Your task to perform on an android device: Go to ESPN.com Image 0: 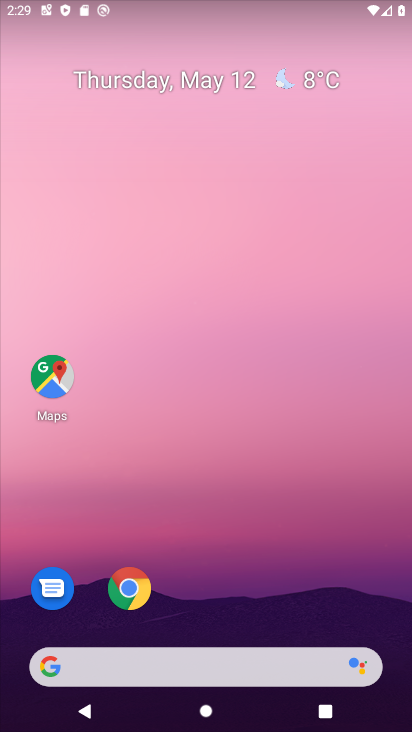
Step 0: drag from (264, 559) to (236, 23)
Your task to perform on an android device: Go to ESPN.com Image 1: 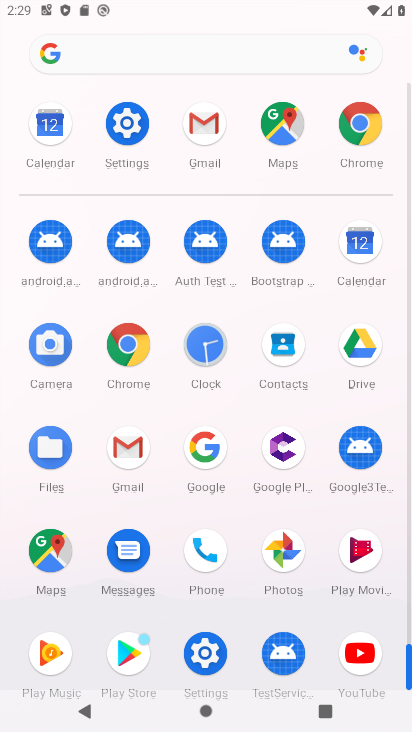
Step 1: click (124, 345)
Your task to perform on an android device: Go to ESPN.com Image 2: 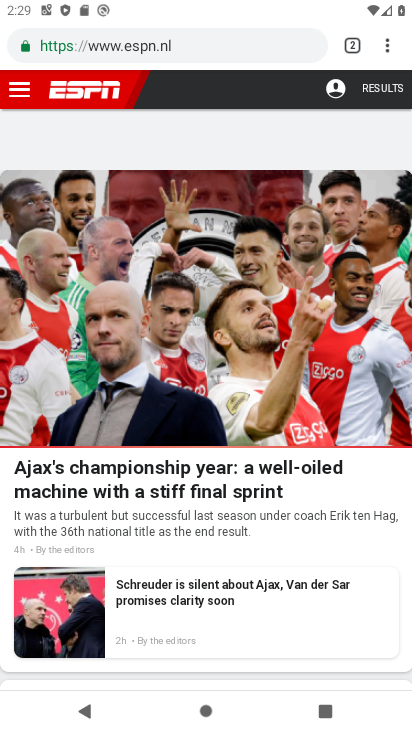
Step 2: click (180, 30)
Your task to perform on an android device: Go to ESPN.com Image 3: 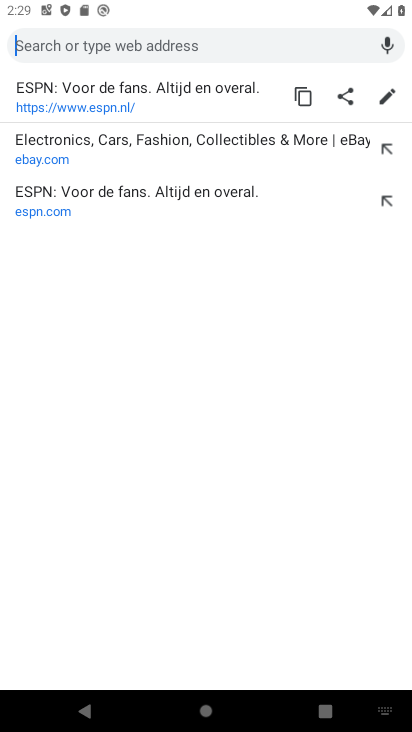
Step 3: click (68, 88)
Your task to perform on an android device: Go to ESPN.com Image 4: 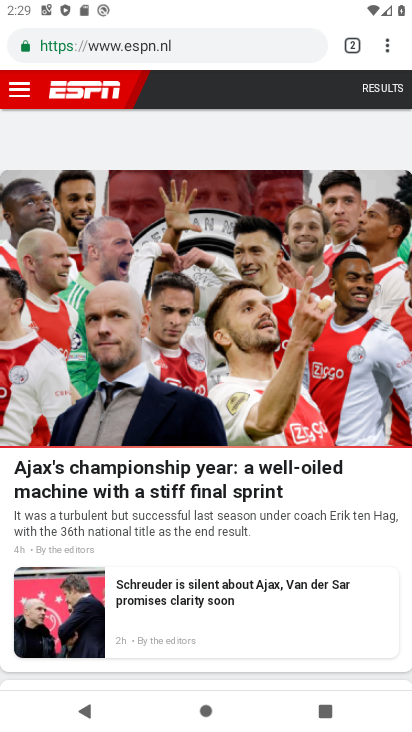
Step 4: task complete